Your task to perform on an android device: check the backup settings in the google photos Image 0: 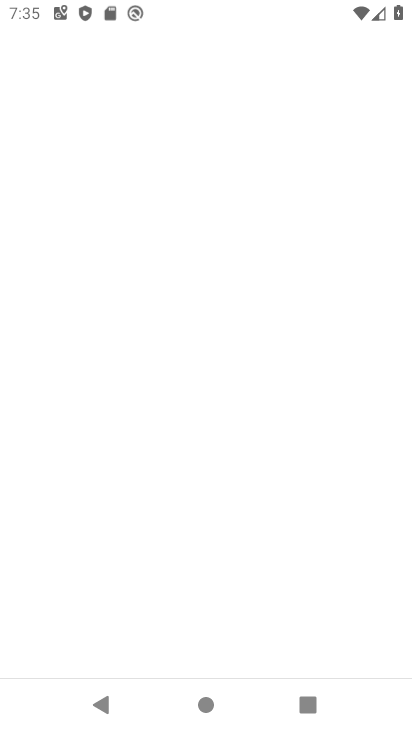
Step 0: drag from (342, 560) to (355, 29)
Your task to perform on an android device: check the backup settings in the google photos Image 1: 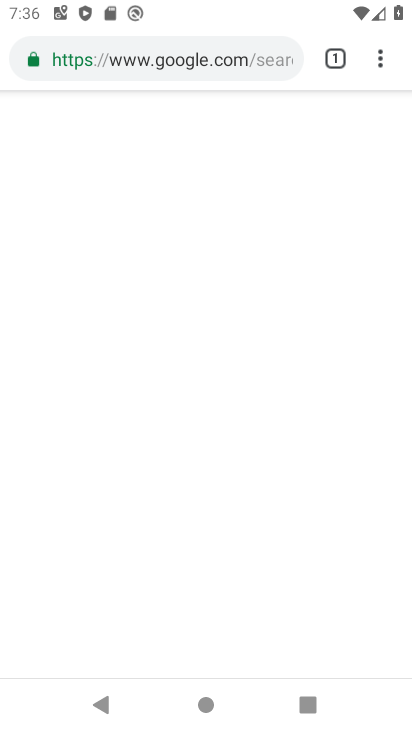
Step 1: press home button
Your task to perform on an android device: check the backup settings in the google photos Image 2: 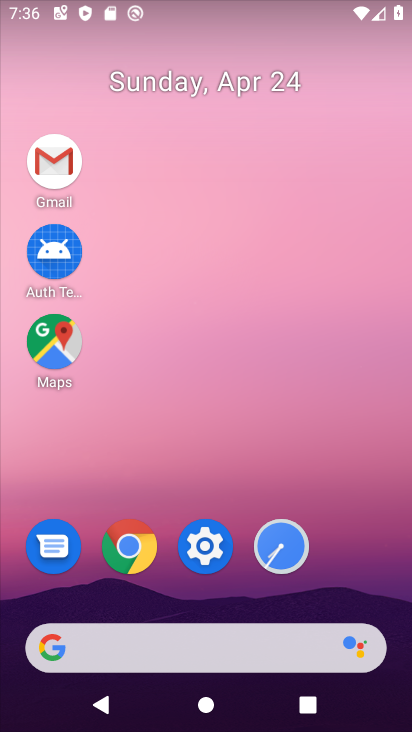
Step 2: drag from (341, 549) to (290, 20)
Your task to perform on an android device: check the backup settings in the google photos Image 3: 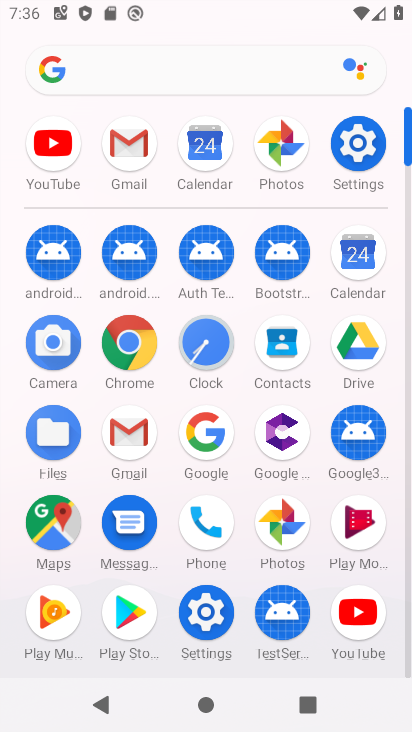
Step 3: click (280, 556)
Your task to perform on an android device: check the backup settings in the google photos Image 4: 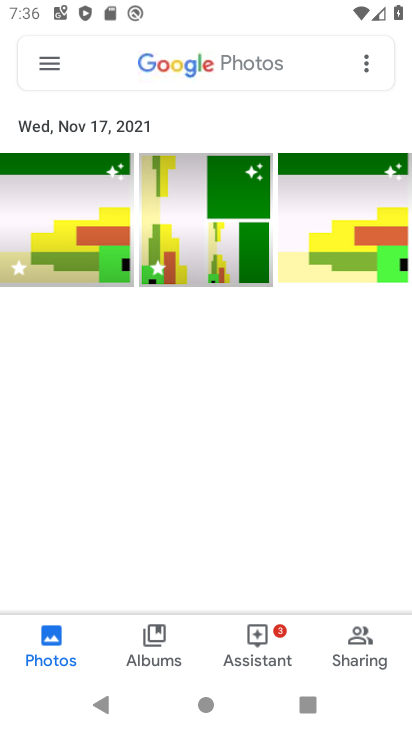
Step 4: click (49, 62)
Your task to perform on an android device: check the backup settings in the google photos Image 5: 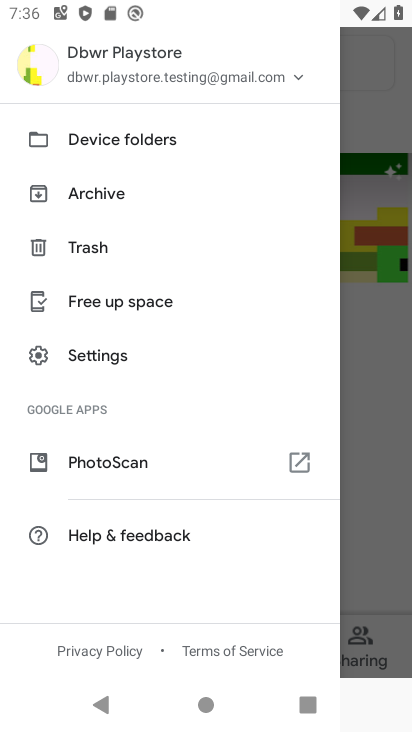
Step 5: click (103, 351)
Your task to perform on an android device: check the backup settings in the google photos Image 6: 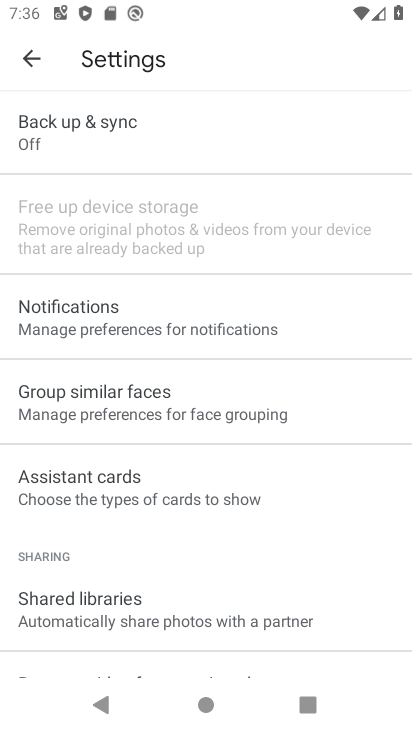
Step 6: click (62, 123)
Your task to perform on an android device: check the backup settings in the google photos Image 7: 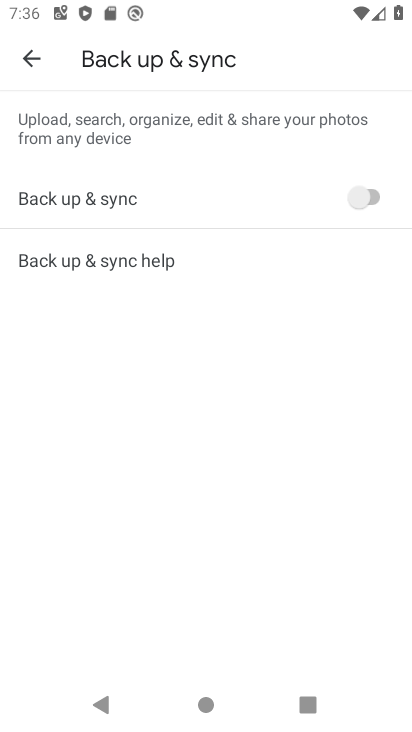
Step 7: click (66, 201)
Your task to perform on an android device: check the backup settings in the google photos Image 8: 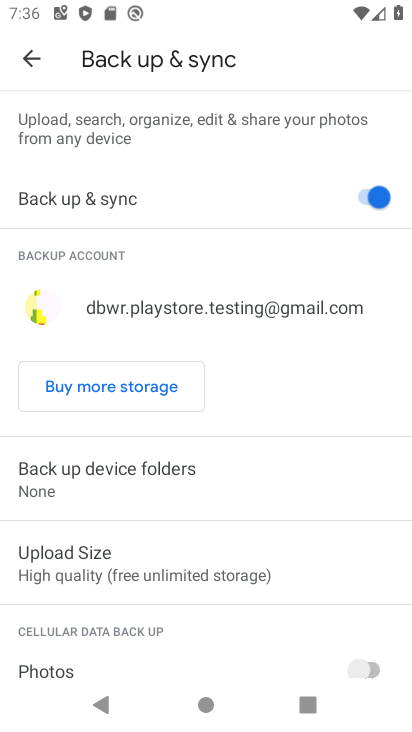
Step 8: task complete